Your task to perform on an android device: check out phone information Image 0: 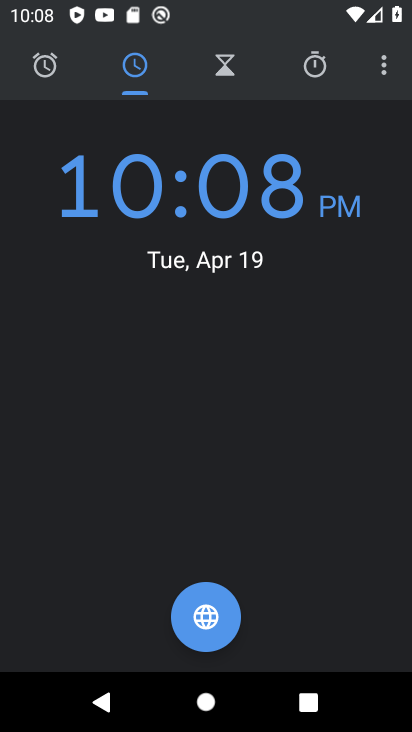
Step 0: press home button
Your task to perform on an android device: check out phone information Image 1: 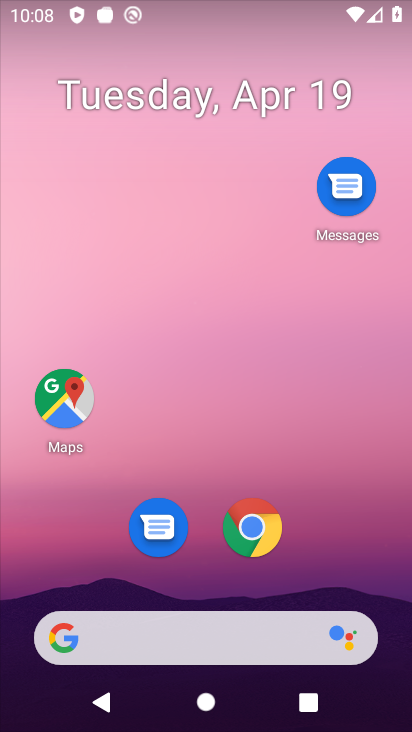
Step 1: drag from (325, 496) to (285, 170)
Your task to perform on an android device: check out phone information Image 2: 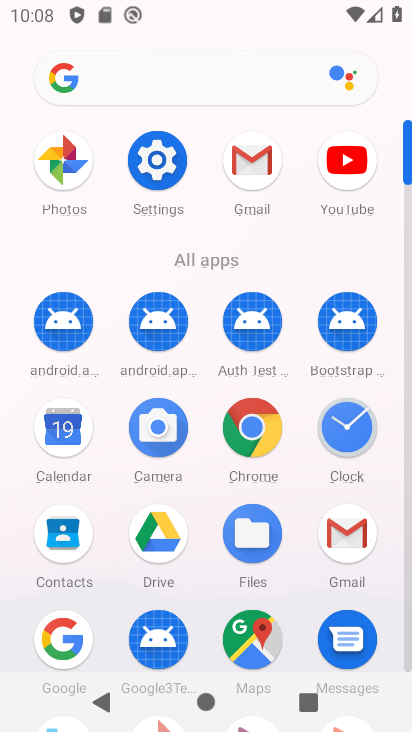
Step 2: drag from (298, 590) to (281, 237)
Your task to perform on an android device: check out phone information Image 3: 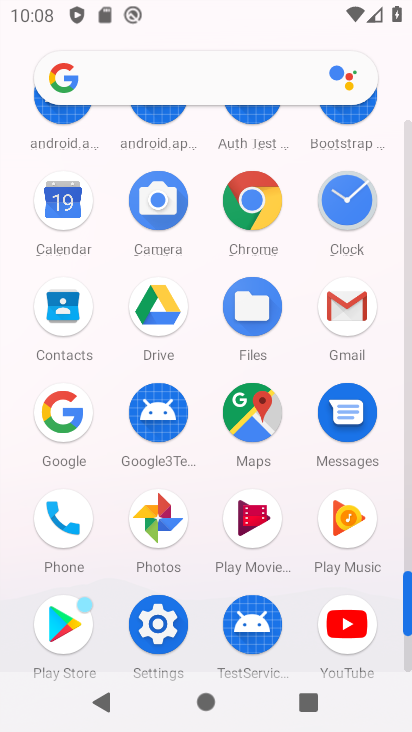
Step 3: drag from (291, 562) to (321, 295)
Your task to perform on an android device: check out phone information Image 4: 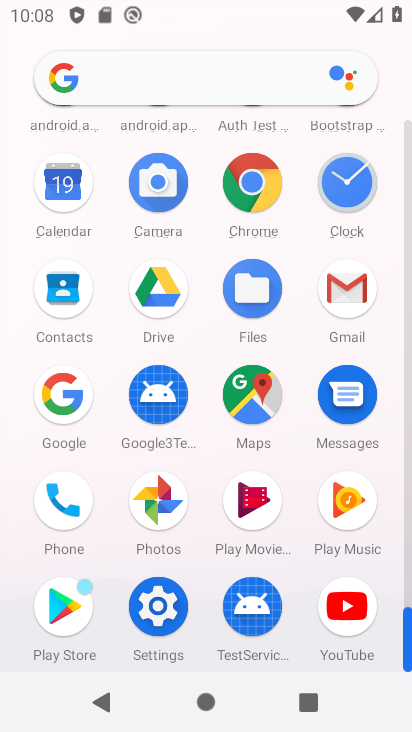
Step 4: click (61, 501)
Your task to perform on an android device: check out phone information Image 5: 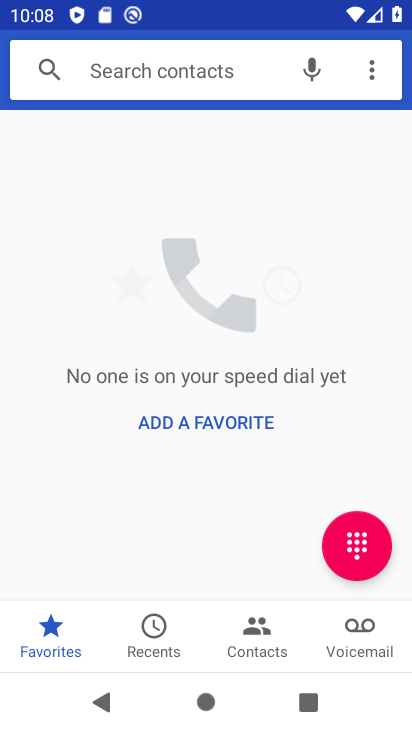
Step 5: drag from (371, 76) to (347, 137)
Your task to perform on an android device: check out phone information Image 6: 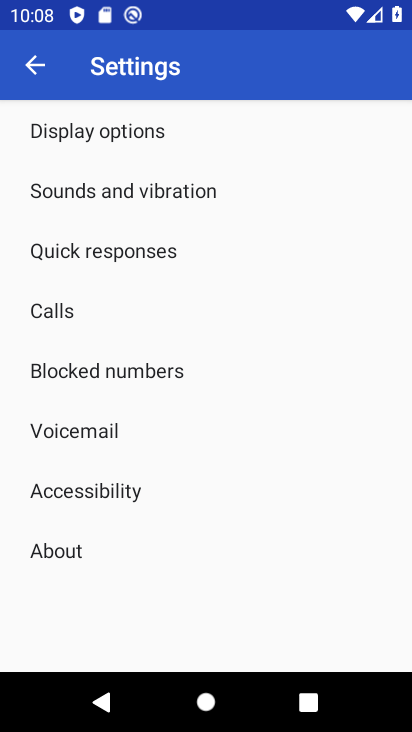
Step 6: click (66, 558)
Your task to perform on an android device: check out phone information Image 7: 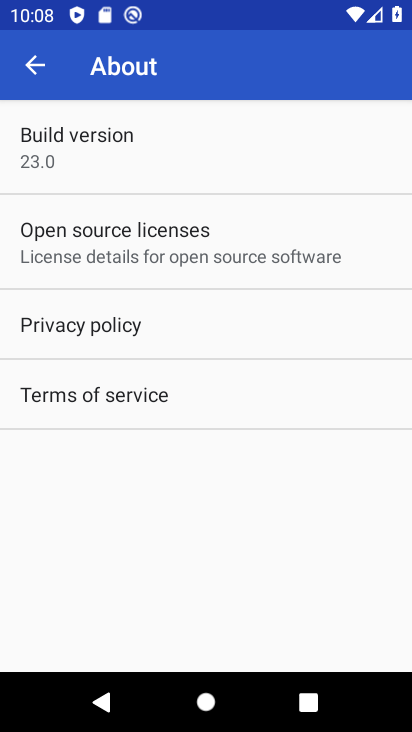
Step 7: task complete